Your task to perform on an android device: Open Google Image 0: 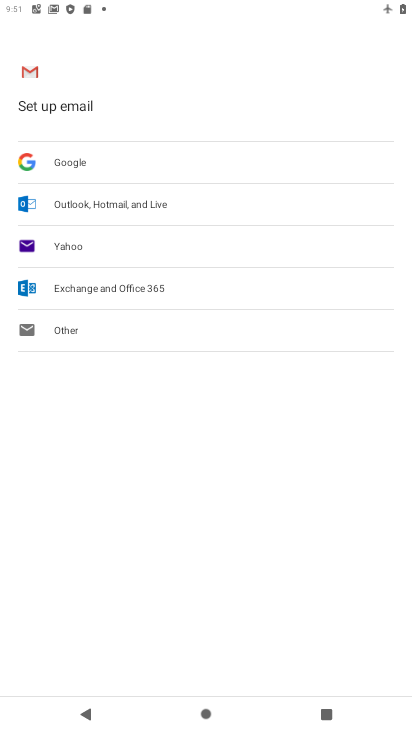
Step 0: press home button
Your task to perform on an android device: Open Google Image 1: 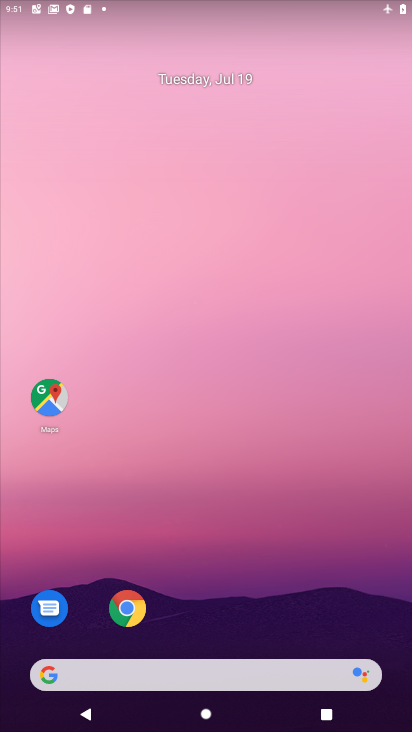
Step 1: drag from (223, 573) to (284, 92)
Your task to perform on an android device: Open Google Image 2: 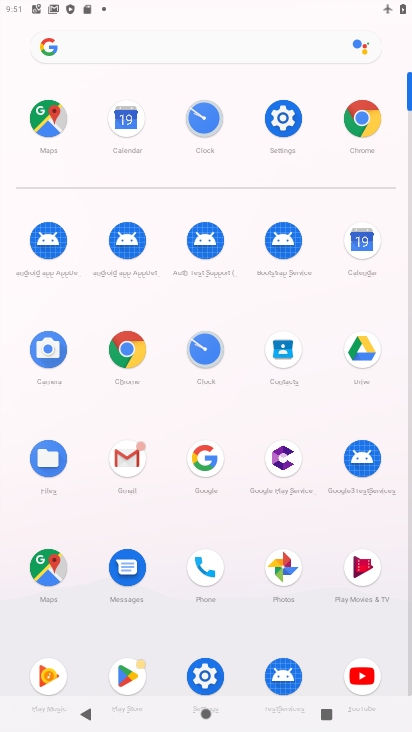
Step 2: click (210, 453)
Your task to perform on an android device: Open Google Image 3: 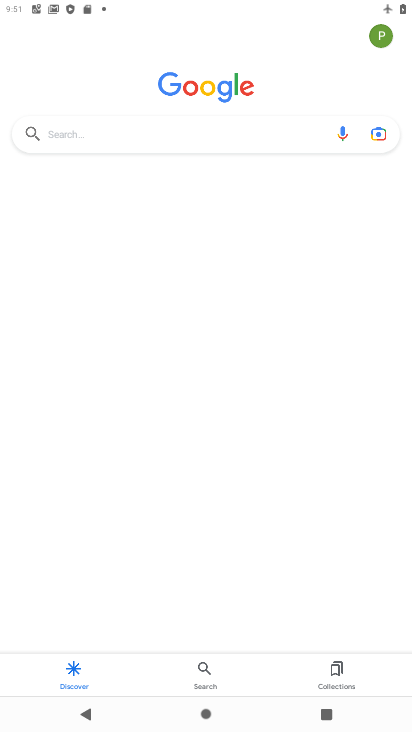
Step 3: task complete